Your task to perform on an android device: Open Chrome and go to settings Image 0: 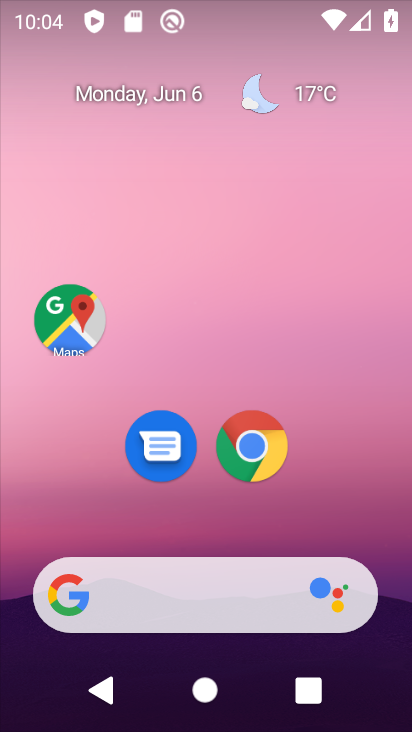
Step 0: click (249, 456)
Your task to perform on an android device: Open Chrome and go to settings Image 1: 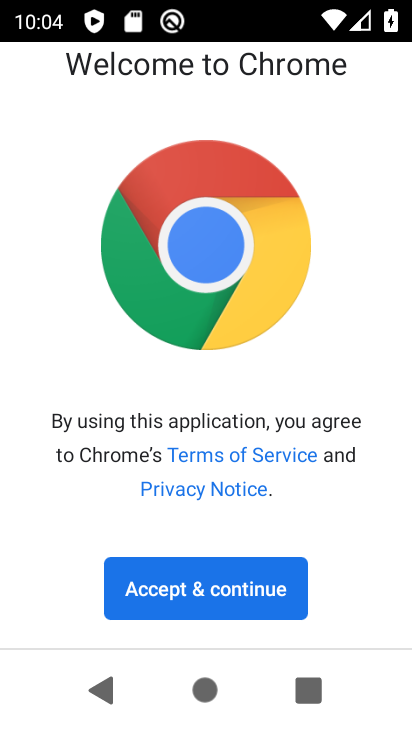
Step 1: click (145, 573)
Your task to perform on an android device: Open Chrome and go to settings Image 2: 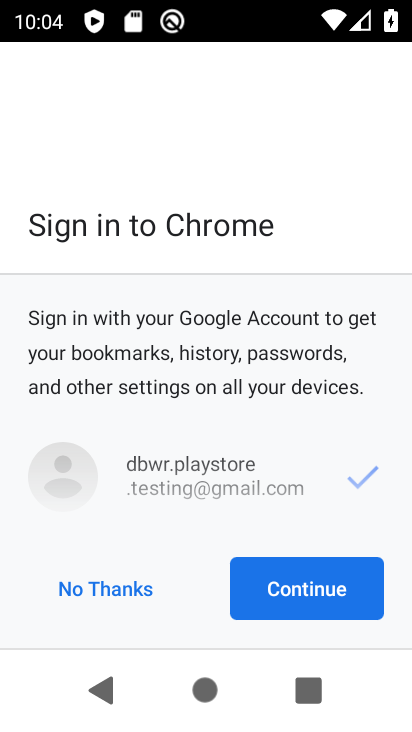
Step 2: click (322, 601)
Your task to perform on an android device: Open Chrome and go to settings Image 3: 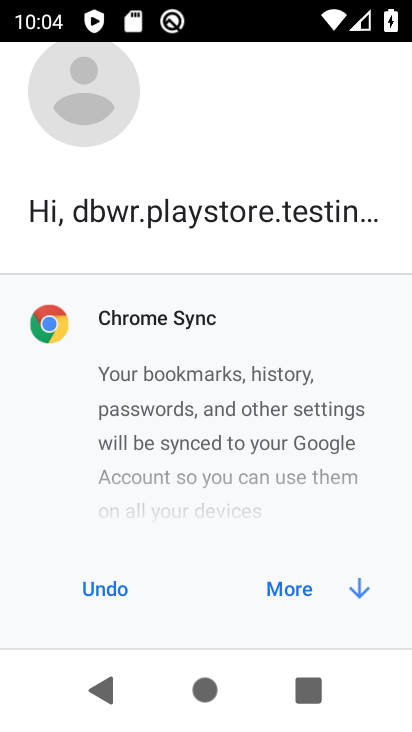
Step 3: click (317, 596)
Your task to perform on an android device: Open Chrome and go to settings Image 4: 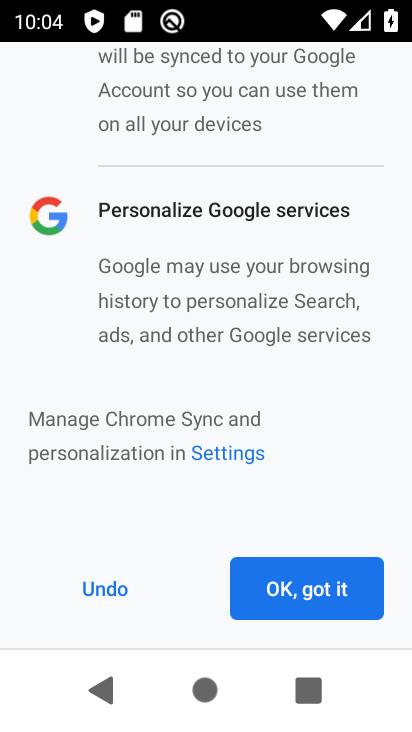
Step 4: click (313, 600)
Your task to perform on an android device: Open Chrome and go to settings Image 5: 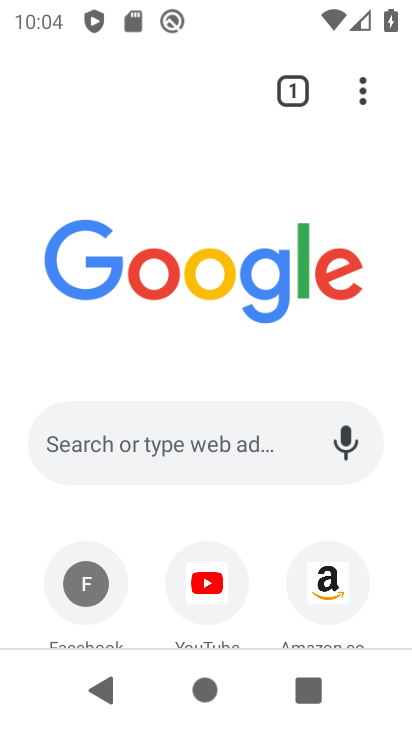
Step 5: click (381, 86)
Your task to perform on an android device: Open Chrome and go to settings Image 6: 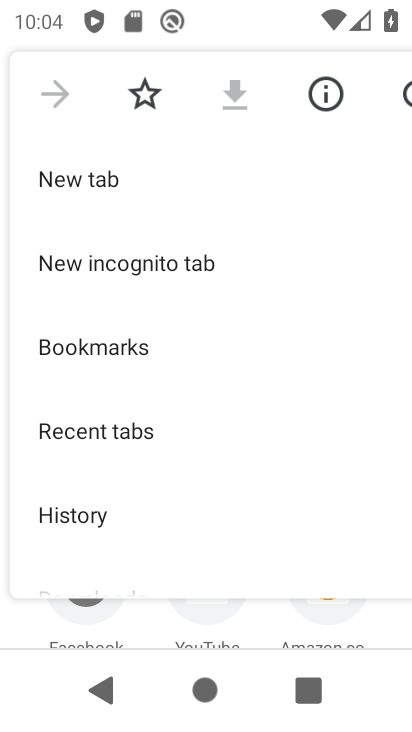
Step 6: drag from (71, 542) to (177, 103)
Your task to perform on an android device: Open Chrome and go to settings Image 7: 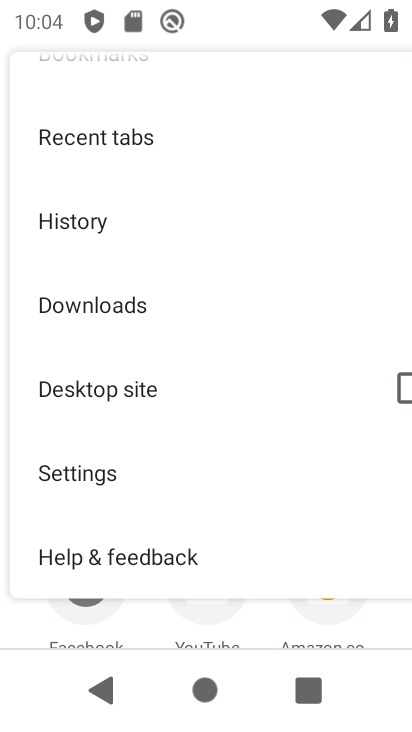
Step 7: click (100, 468)
Your task to perform on an android device: Open Chrome and go to settings Image 8: 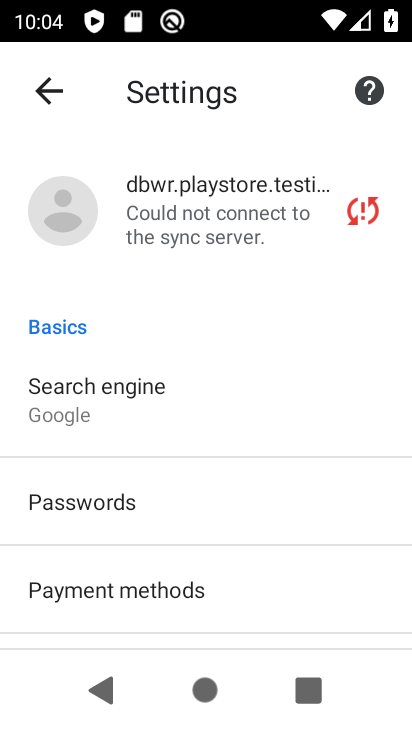
Step 8: task complete